Your task to perform on an android device: Do I have any events tomorrow? Image 0: 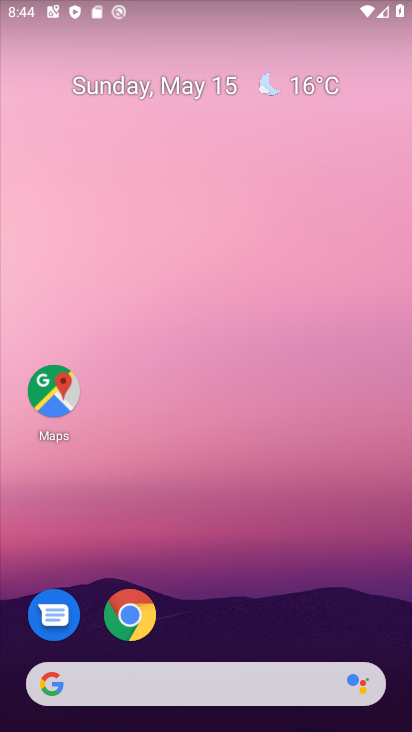
Step 0: drag from (312, 625) to (245, 154)
Your task to perform on an android device: Do I have any events tomorrow? Image 1: 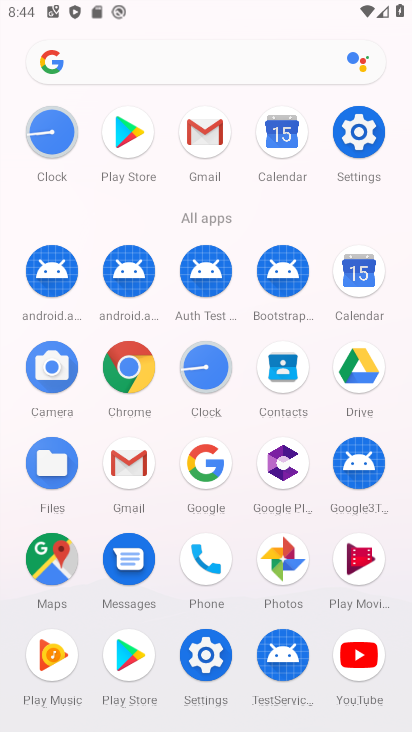
Step 1: click (357, 266)
Your task to perform on an android device: Do I have any events tomorrow? Image 2: 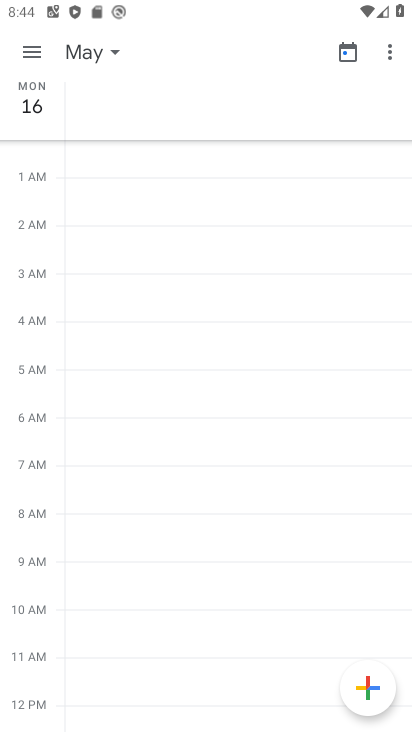
Step 2: click (42, 50)
Your task to perform on an android device: Do I have any events tomorrow? Image 3: 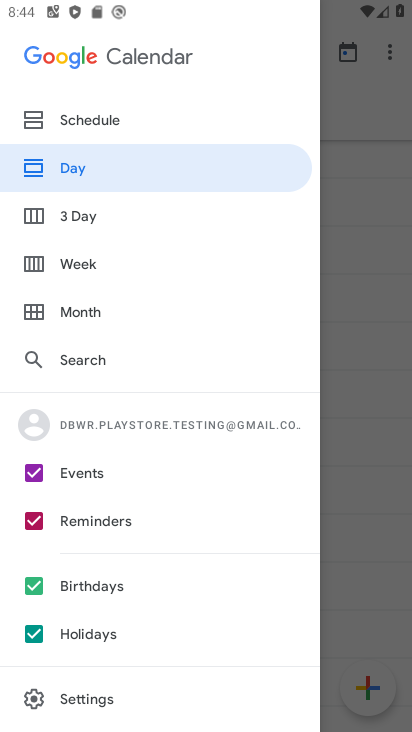
Step 3: click (119, 161)
Your task to perform on an android device: Do I have any events tomorrow? Image 4: 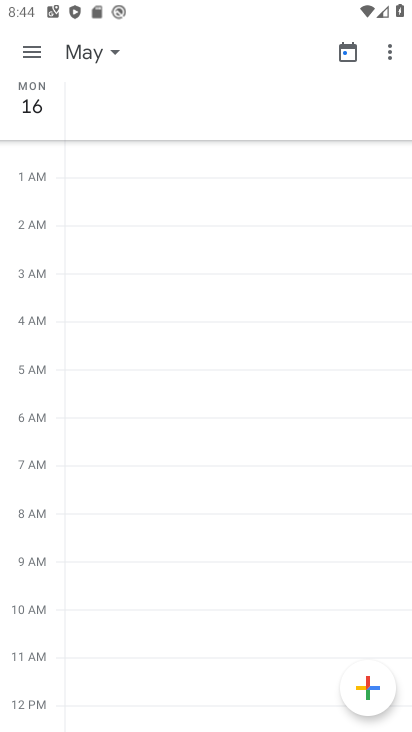
Step 4: click (94, 41)
Your task to perform on an android device: Do I have any events tomorrow? Image 5: 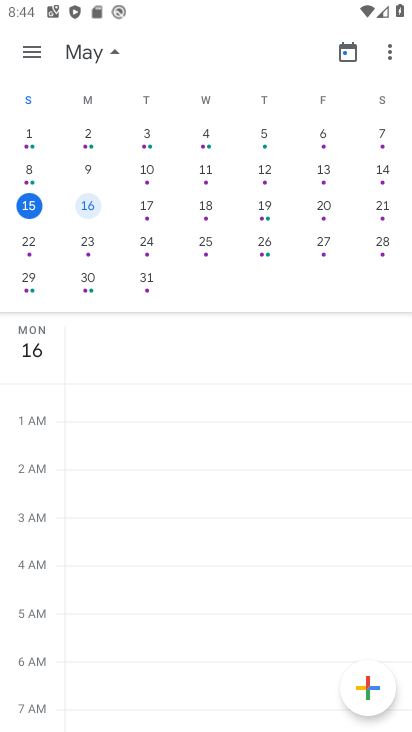
Step 5: click (83, 201)
Your task to perform on an android device: Do I have any events tomorrow? Image 6: 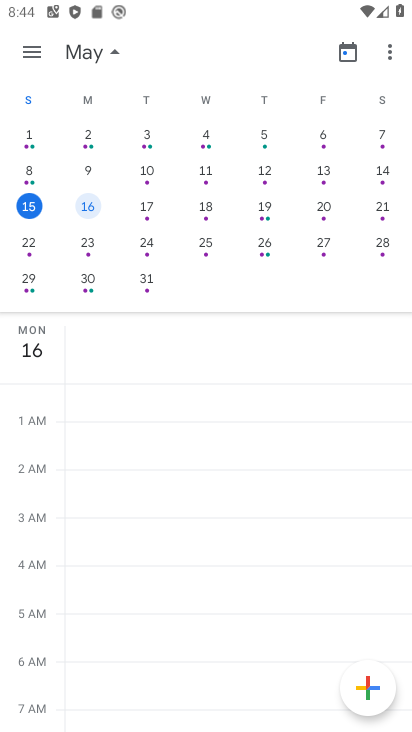
Step 6: click (84, 207)
Your task to perform on an android device: Do I have any events tomorrow? Image 7: 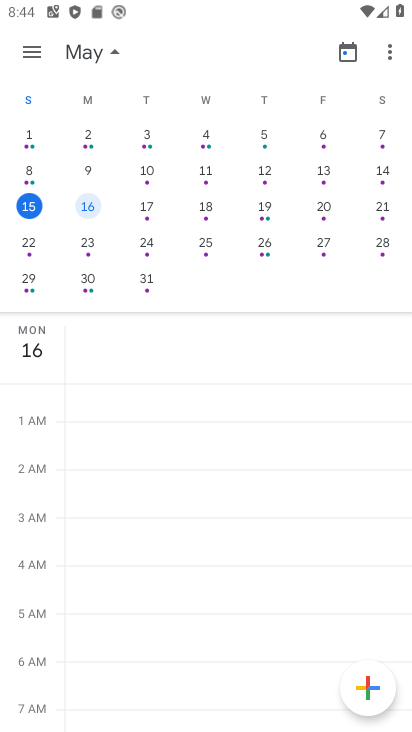
Step 7: click (88, 205)
Your task to perform on an android device: Do I have any events tomorrow? Image 8: 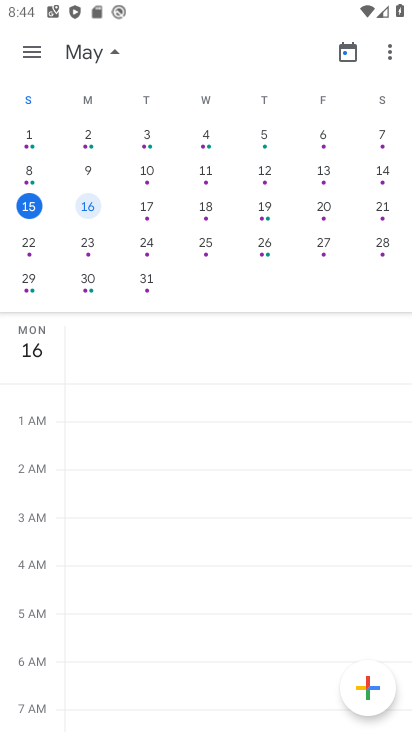
Step 8: task complete